Your task to perform on an android device: Search for sushi restaurants on Maps Image 0: 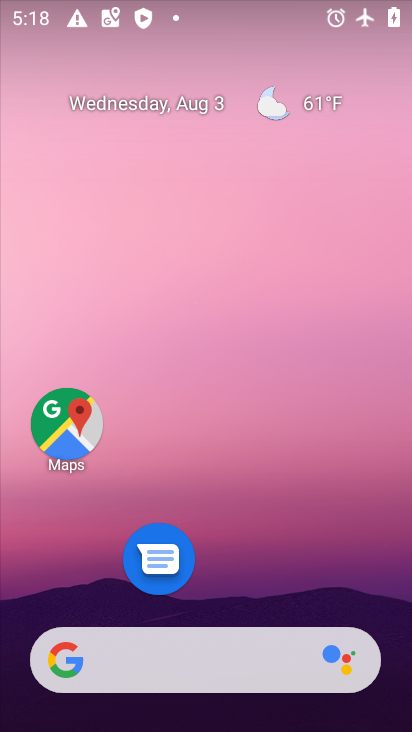
Step 0: drag from (191, 626) to (203, 245)
Your task to perform on an android device: Search for sushi restaurants on Maps Image 1: 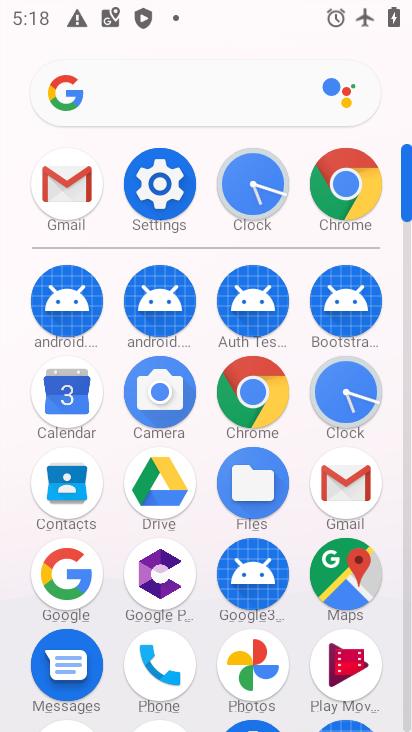
Step 1: drag from (205, 703) to (215, 377)
Your task to perform on an android device: Search for sushi restaurants on Maps Image 2: 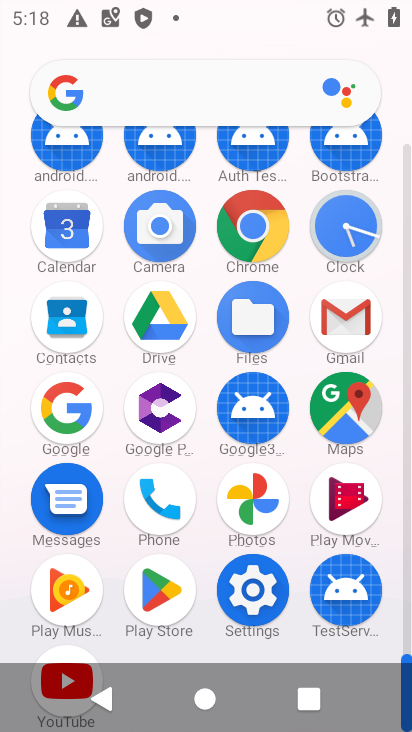
Step 2: click (349, 426)
Your task to perform on an android device: Search for sushi restaurants on Maps Image 3: 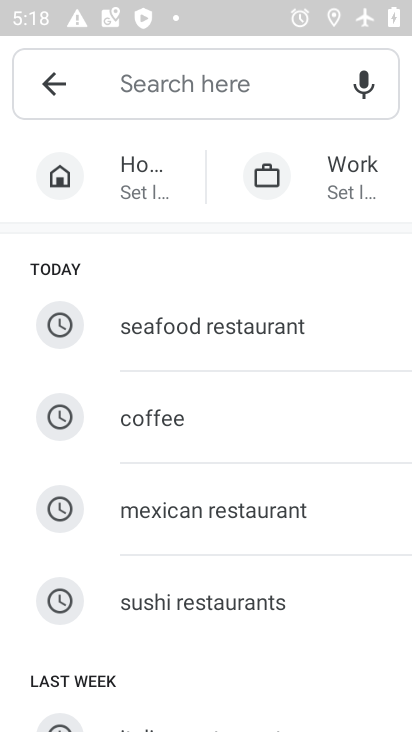
Step 3: click (161, 598)
Your task to perform on an android device: Search for sushi restaurants on Maps Image 4: 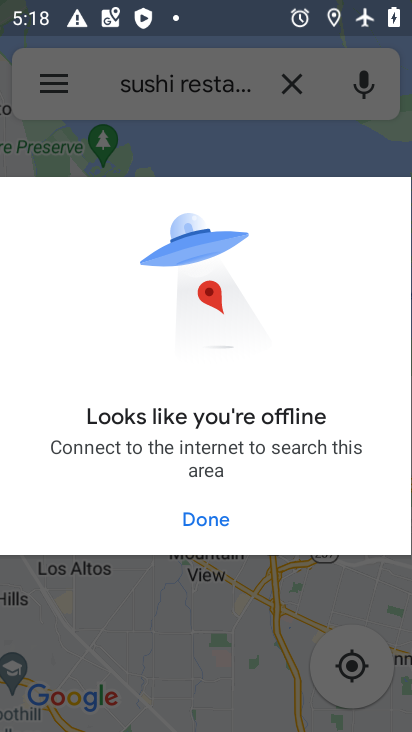
Step 4: click (206, 524)
Your task to perform on an android device: Search for sushi restaurants on Maps Image 5: 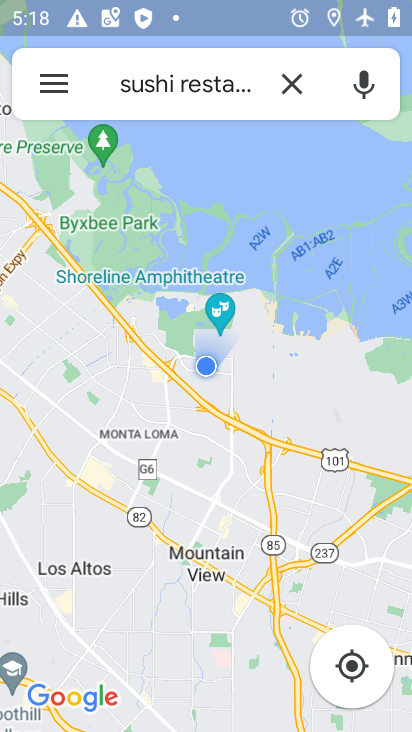
Step 5: task complete